Your task to perform on an android device: Open Google Chrome Image 0: 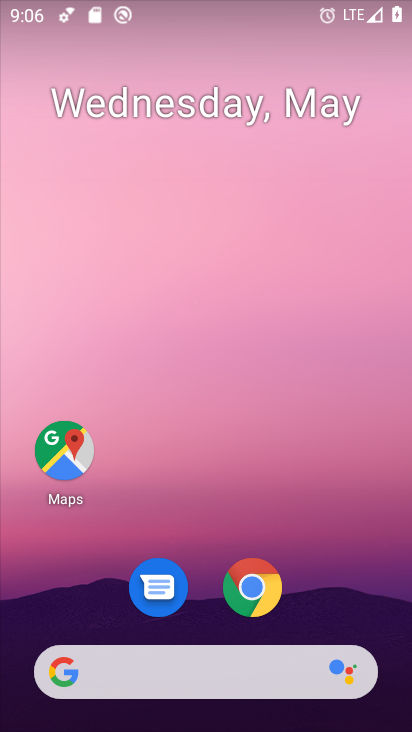
Step 0: click (255, 605)
Your task to perform on an android device: Open Google Chrome Image 1: 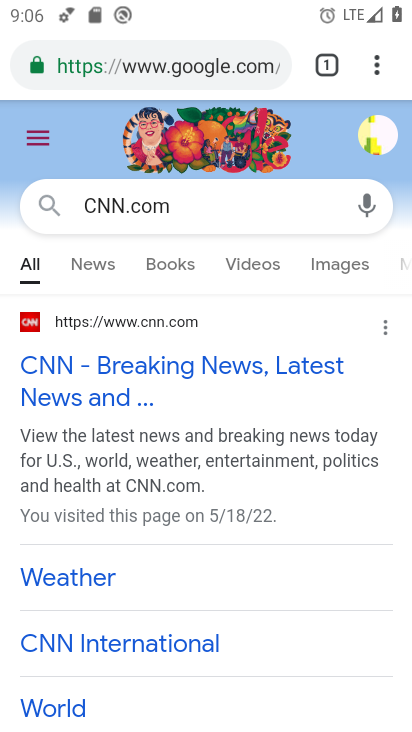
Step 1: task complete